Your task to perform on an android device: change timer sound Image 0: 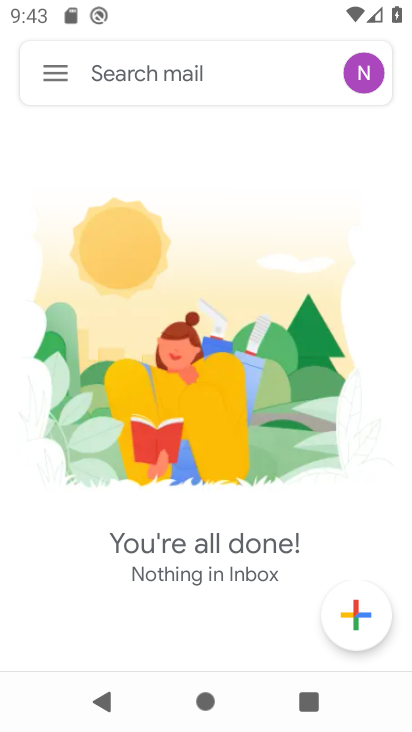
Step 0: press home button
Your task to perform on an android device: change timer sound Image 1: 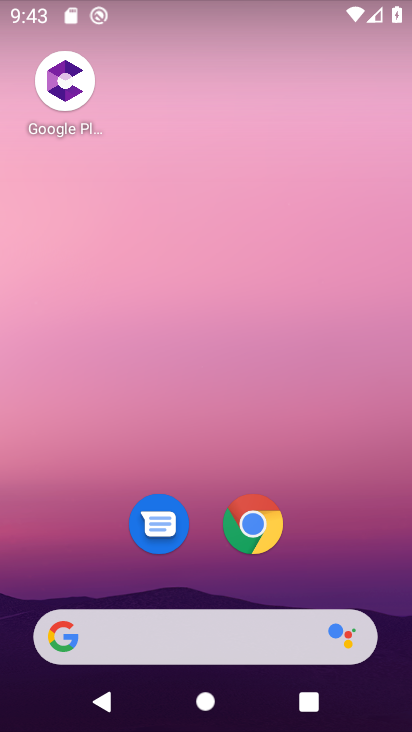
Step 1: drag from (320, 564) to (340, 28)
Your task to perform on an android device: change timer sound Image 2: 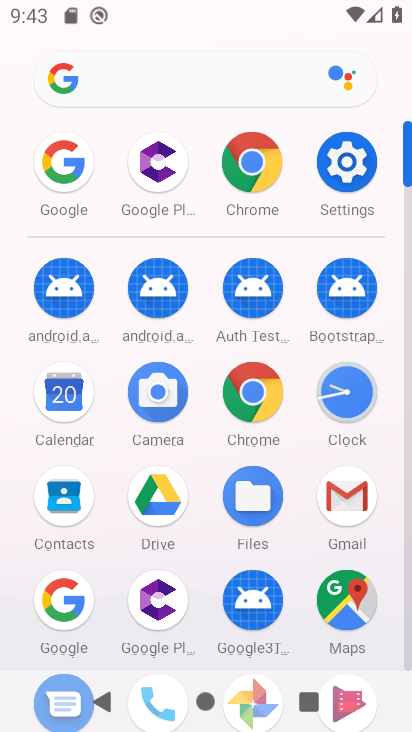
Step 2: click (346, 390)
Your task to perform on an android device: change timer sound Image 3: 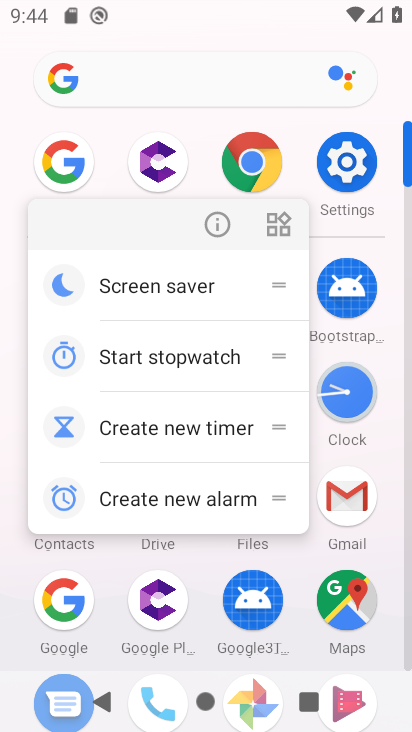
Step 3: click (346, 389)
Your task to perform on an android device: change timer sound Image 4: 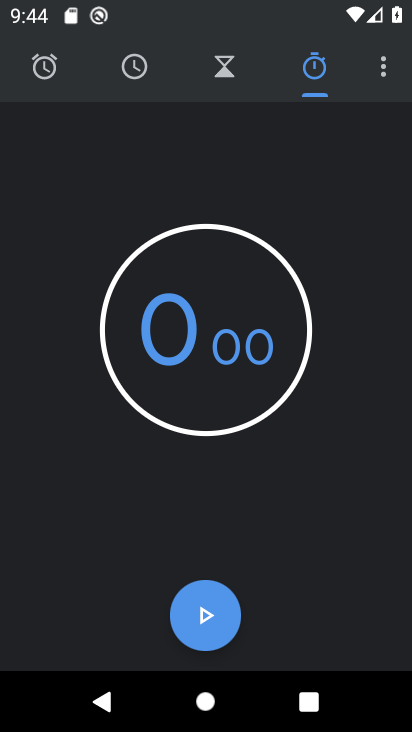
Step 4: click (388, 64)
Your task to perform on an android device: change timer sound Image 5: 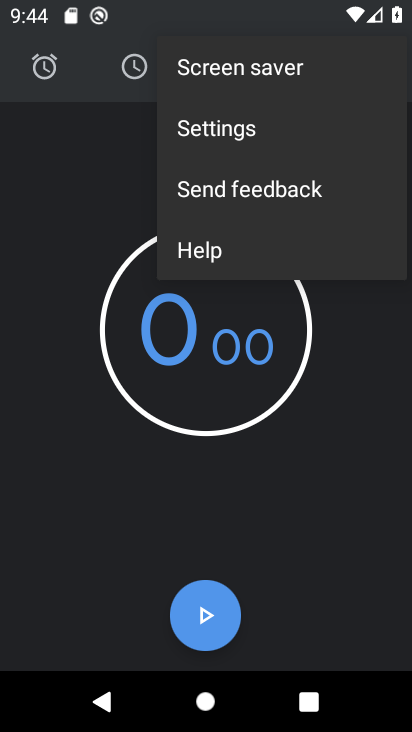
Step 5: click (250, 125)
Your task to perform on an android device: change timer sound Image 6: 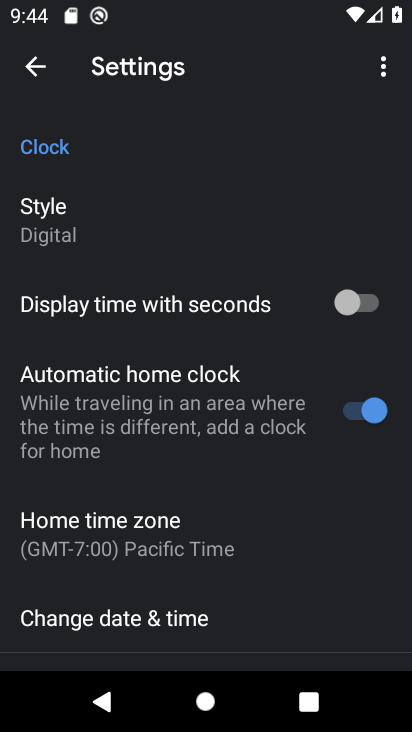
Step 6: drag from (209, 502) to (251, 184)
Your task to perform on an android device: change timer sound Image 7: 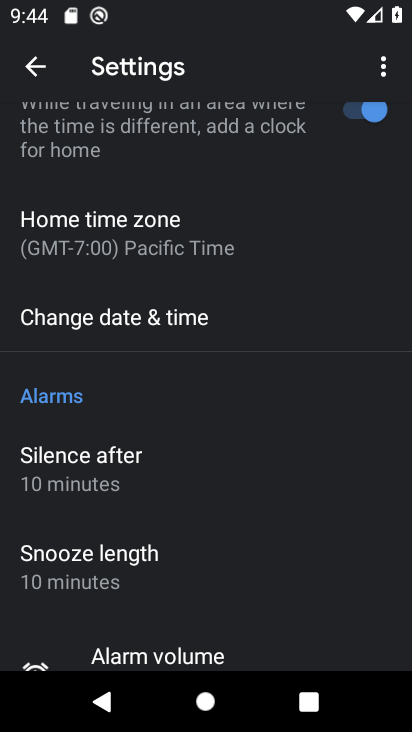
Step 7: drag from (202, 493) to (284, 38)
Your task to perform on an android device: change timer sound Image 8: 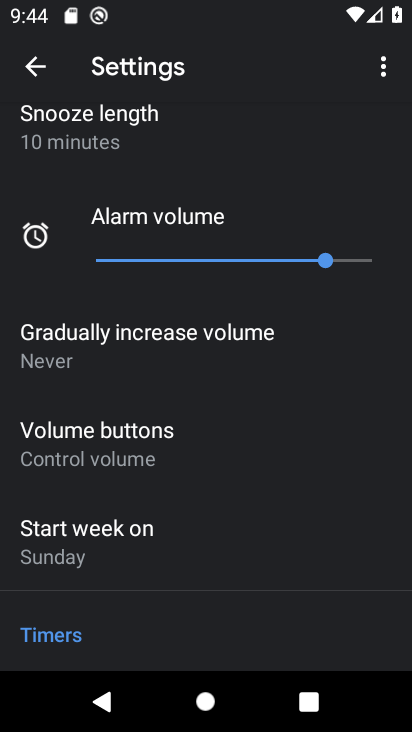
Step 8: drag from (199, 508) to (234, 157)
Your task to perform on an android device: change timer sound Image 9: 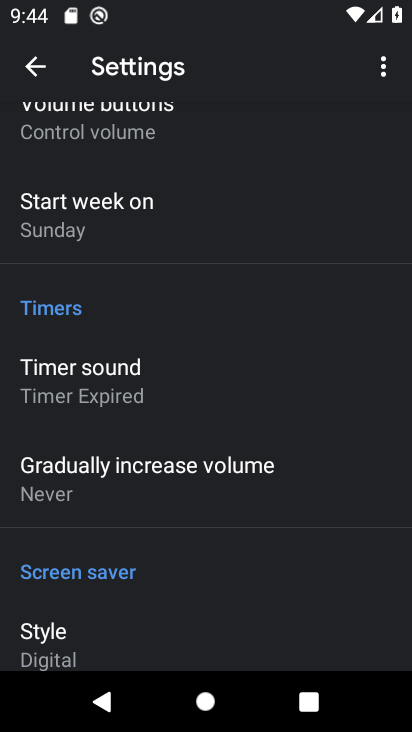
Step 9: click (115, 366)
Your task to perform on an android device: change timer sound Image 10: 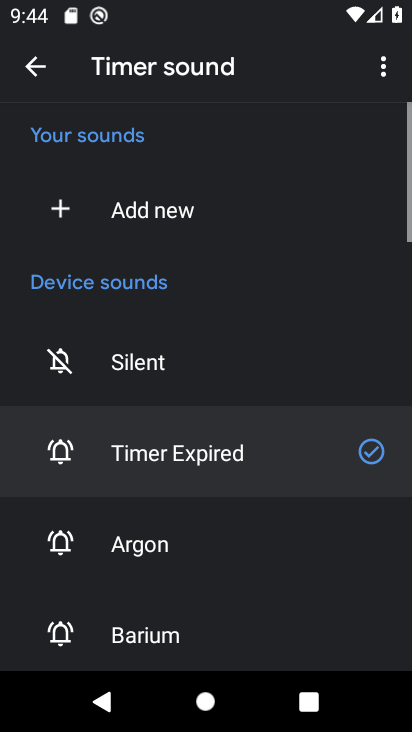
Step 10: click (103, 547)
Your task to perform on an android device: change timer sound Image 11: 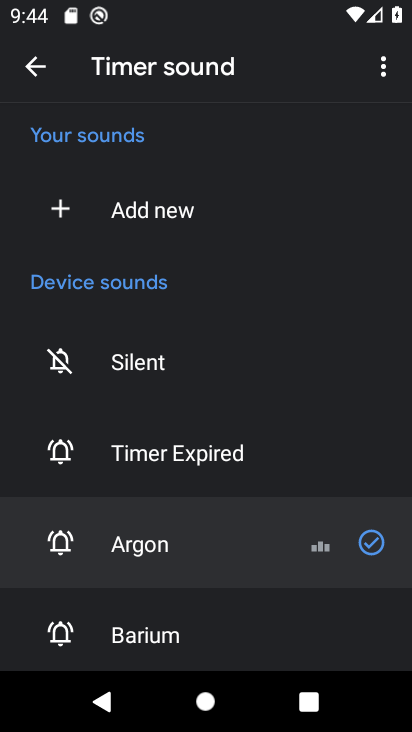
Step 11: task complete